Your task to perform on an android device: What's the weather going to be tomorrow? Image 0: 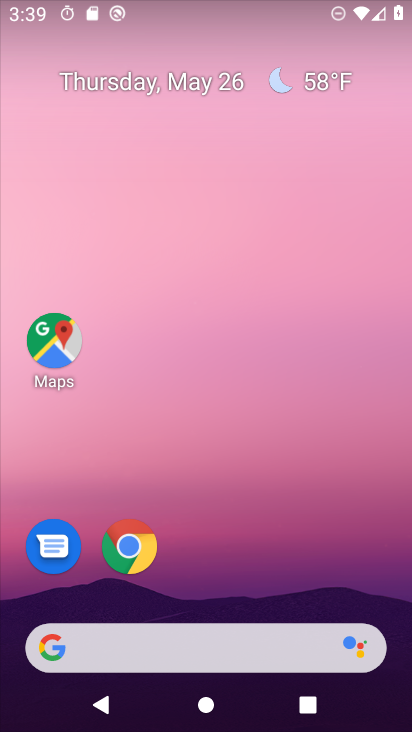
Step 0: click (320, 79)
Your task to perform on an android device: What's the weather going to be tomorrow? Image 1: 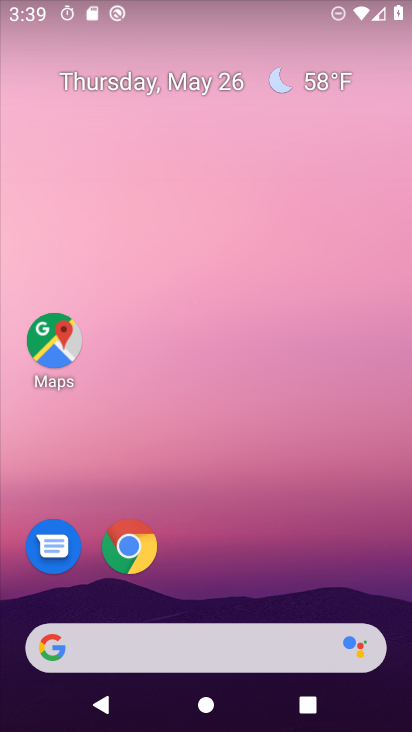
Step 1: click (317, 76)
Your task to perform on an android device: What's the weather going to be tomorrow? Image 2: 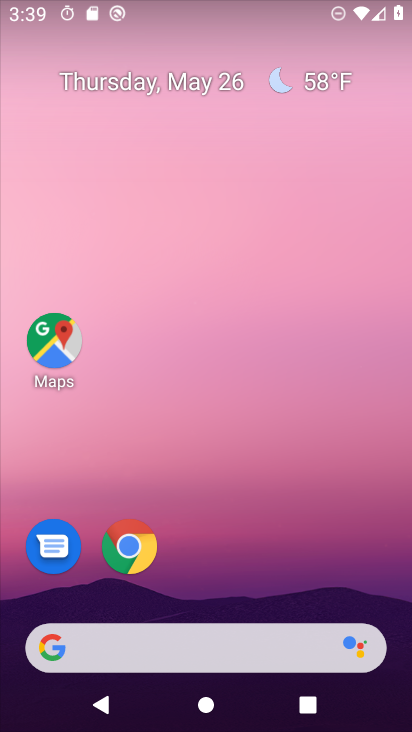
Step 2: drag from (10, 226) to (411, 200)
Your task to perform on an android device: What's the weather going to be tomorrow? Image 3: 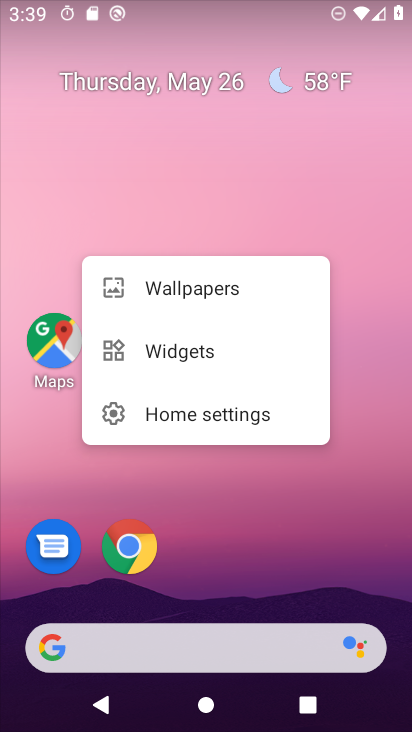
Step 3: click (169, 181)
Your task to perform on an android device: What's the weather going to be tomorrow? Image 4: 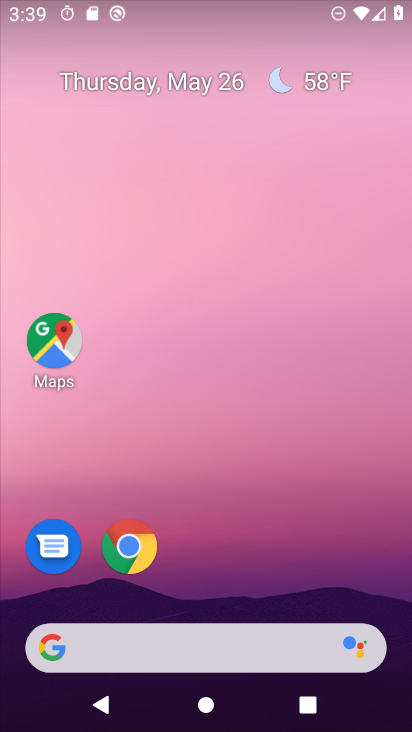
Step 4: drag from (5, 169) to (411, 199)
Your task to perform on an android device: What's the weather going to be tomorrow? Image 5: 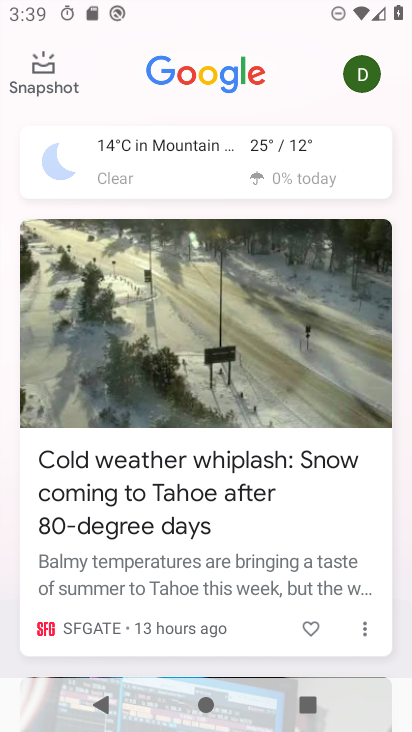
Step 5: click (293, 146)
Your task to perform on an android device: What's the weather going to be tomorrow? Image 6: 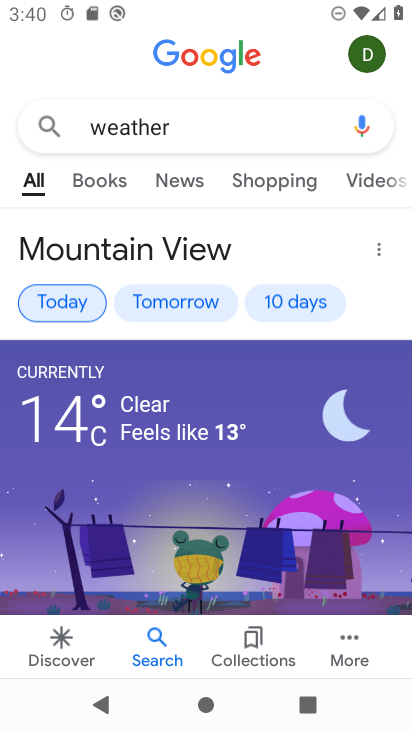
Step 6: click (170, 300)
Your task to perform on an android device: What's the weather going to be tomorrow? Image 7: 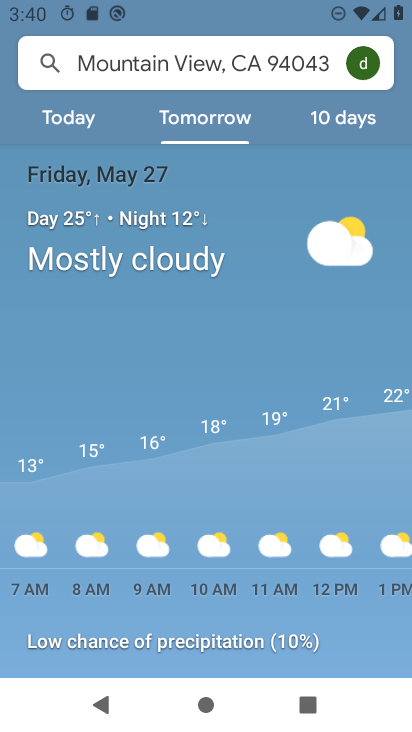
Step 7: task complete